Your task to perform on an android device: turn vacation reply on in the gmail app Image 0: 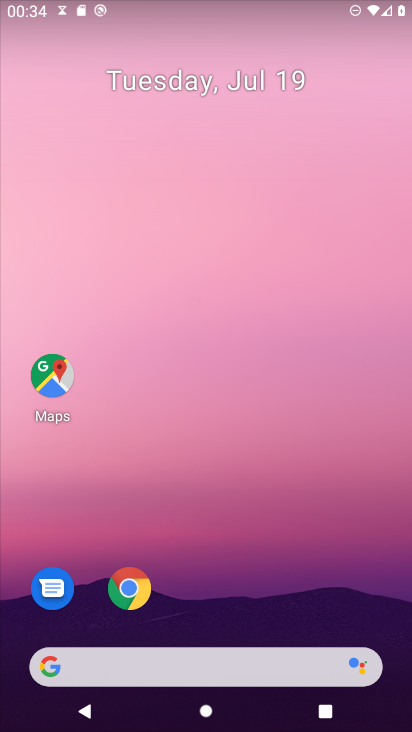
Step 0: press home button
Your task to perform on an android device: turn vacation reply on in the gmail app Image 1: 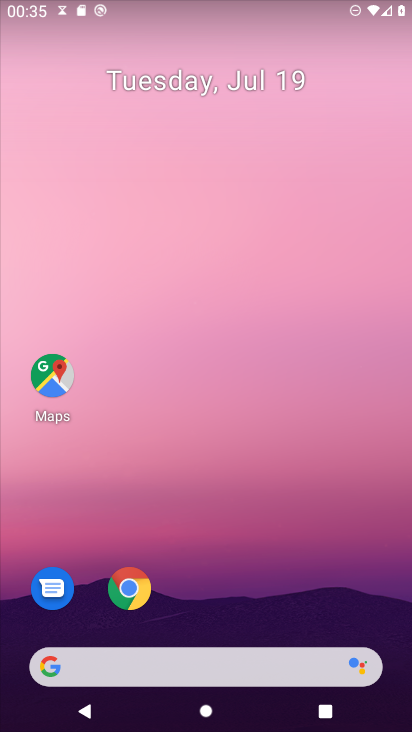
Step 1: drag from (281, 488) to (306, 119)
Your task to perform on an android device: turn vacation reply on in the gmail app Image 2: 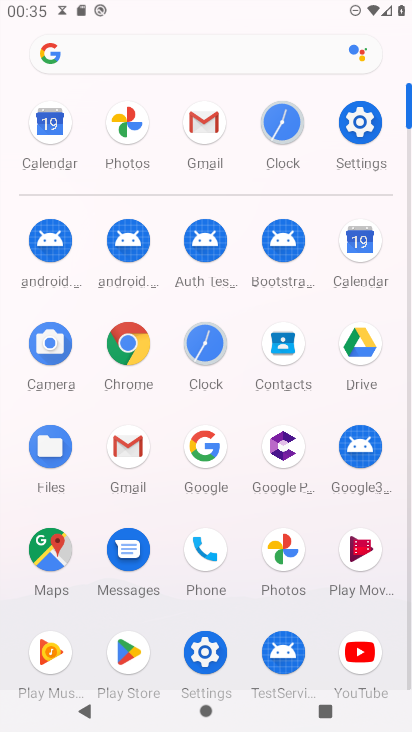
Step 2: click (200, 120)
Your task to perform on an android device: turn vacation reply on in the gmail app Image 3: 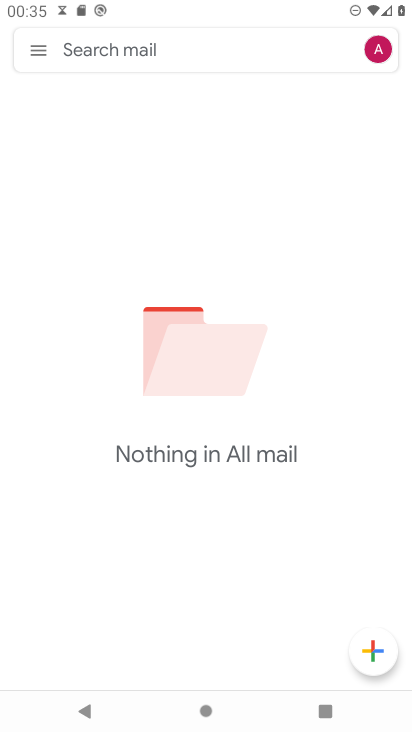
Step 3: click (37, 50)
Your task to perform on an android device: turn vacation reply on in the gmail app Image 4: 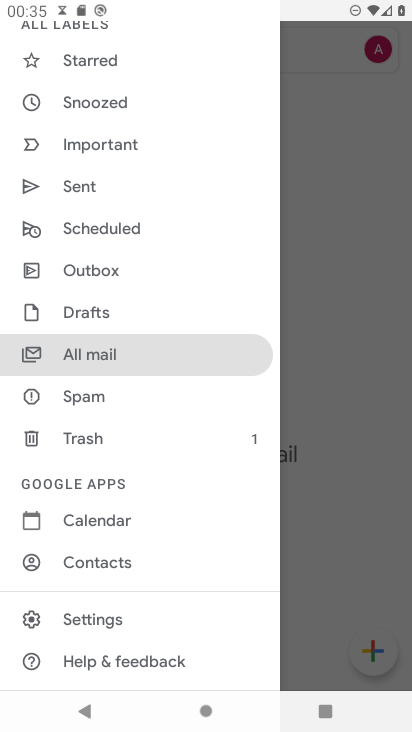
Step 4: click (94, 610)
Your task to perform on an android device: turn vacation reply on in the gmail app Image 5: 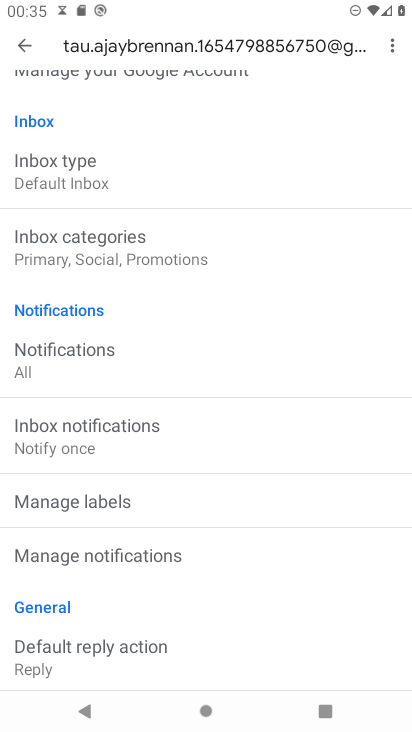
Step 5: drag from (288, 625) to (281, 195)
Your task to perform on an android device: turn vacation reply on in the gmail app Image 6: 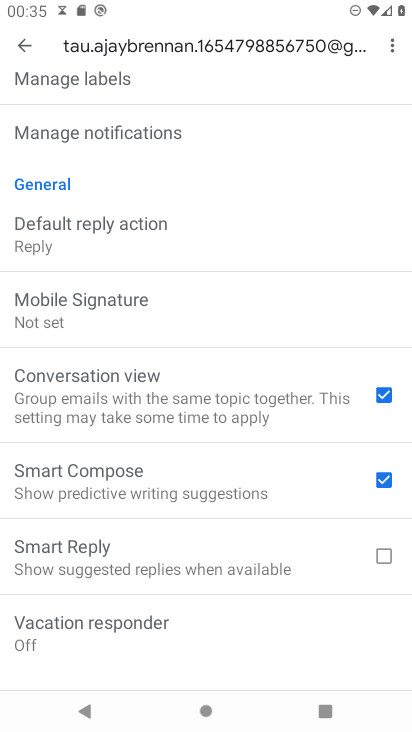
Step 6: click (70, 635)
Your task to perform on an android device: turn vacation reply on in the gmail app Image 7: 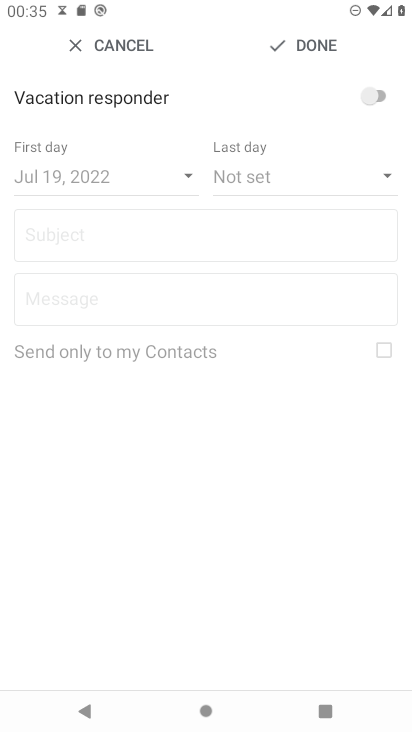
Step 7: click (370, 92)
Your task to perform on an android device: turn vacation reply on in the gmail app Image 8: 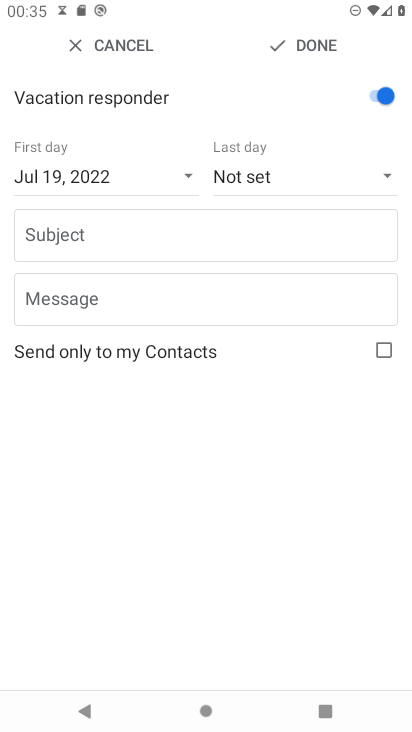
Step 8: task complete